Your task to perform on an android device: Open sound settings Image 0: 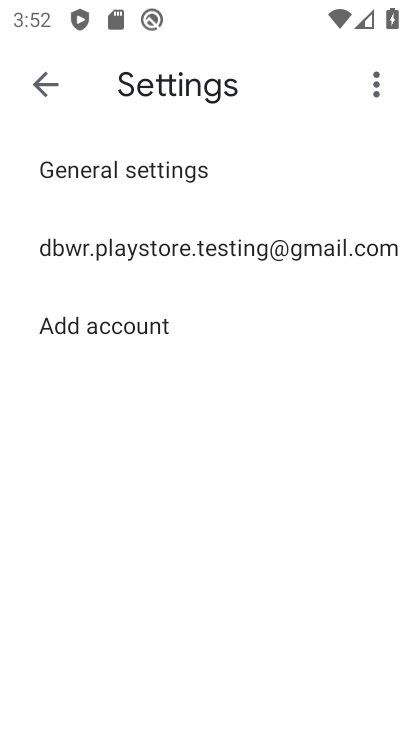
Step 0: press home button
Your task to perform on an android device: Open sound settings Image 1: 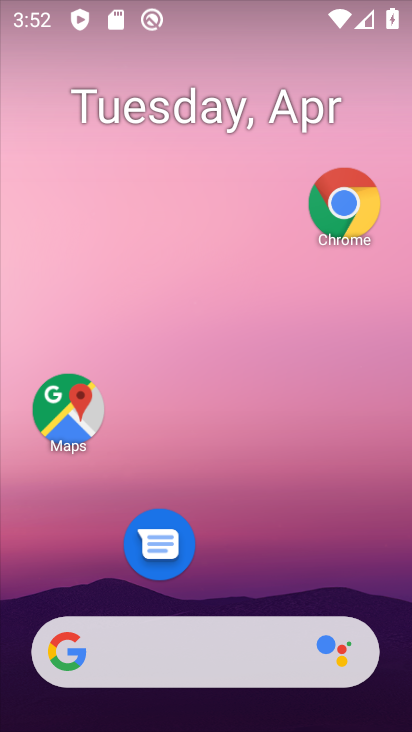
Step 1: drag from (245, 557) to (65, 28)
Your task to perform on an android device: Open sound settings Image 2: 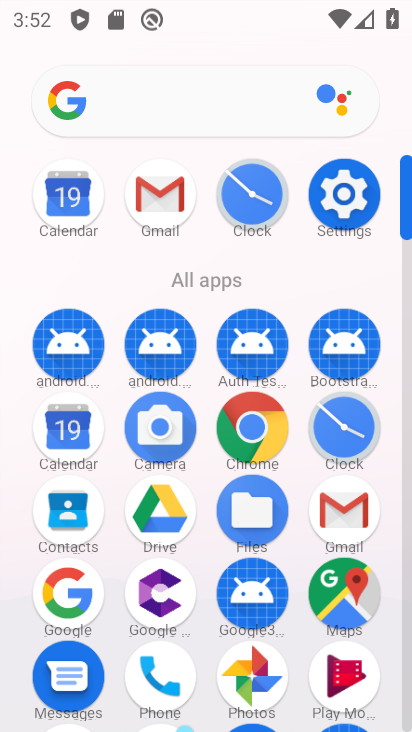
Step 2: click (348, 194)
Your task to perform on an android device: Open sound settings Image 3: 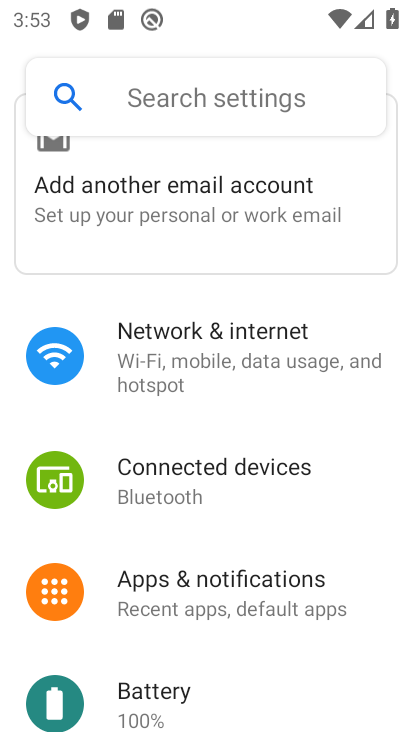
Step 3: drag from (184, 585) to (217, 259)
Your task to perform on an android device: Open sound settings Image 4: 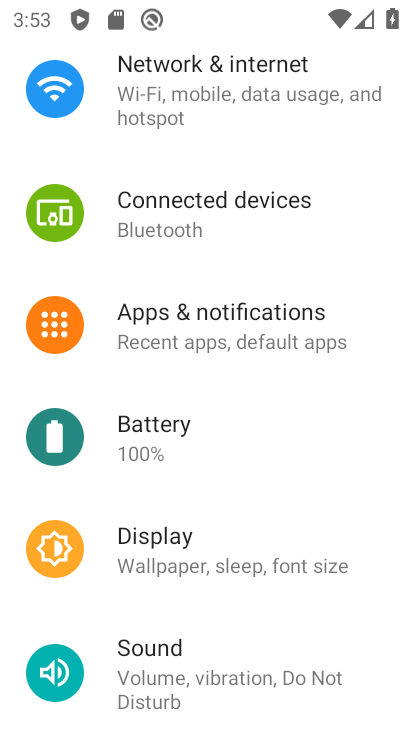
Step 4: click (144, 658)
Your task to perform on an android device: Open sound settings Image 5: 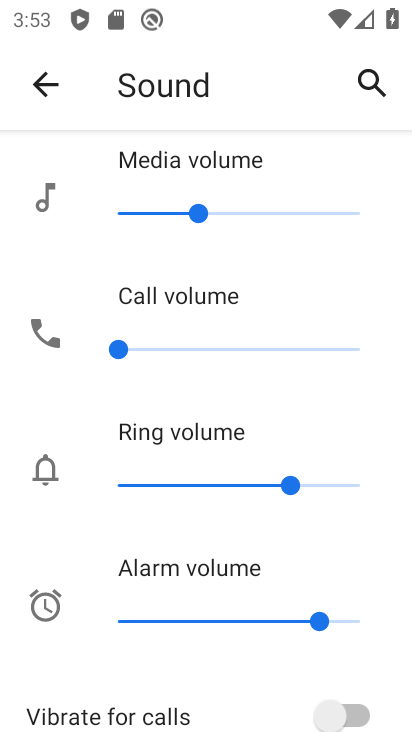
Step 5: task complete